Your task to perform on an android device: turn off airplane mode Image 0: 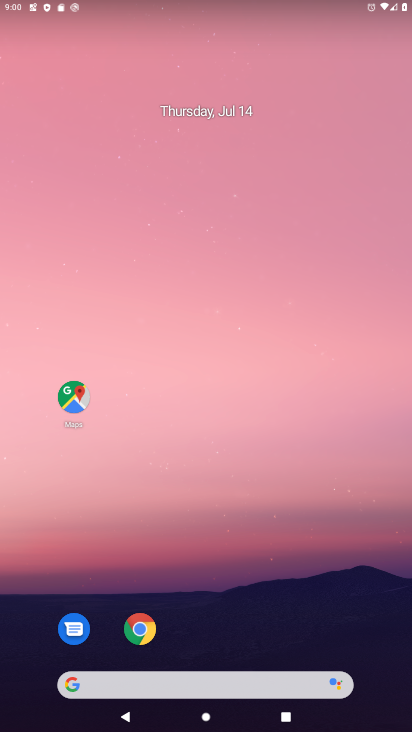
Step 0: click (268, 146)
Your task to perform on an android device: turn off airplane mode Image 1: 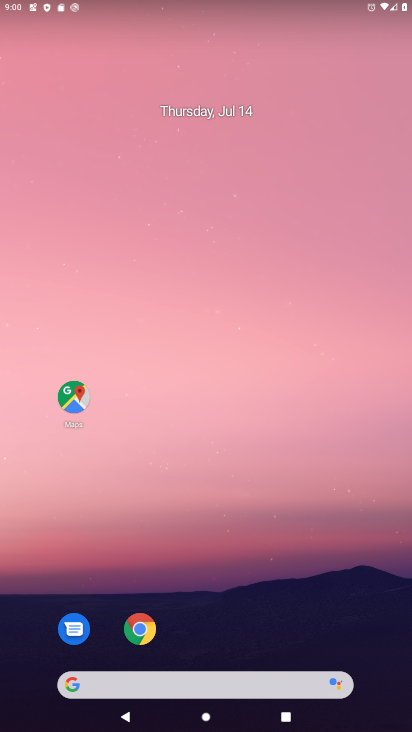
Step 1: drag from (246, 562) to (226, 27)
Your task to perform on an android device: turn off airplane mode Image 2: 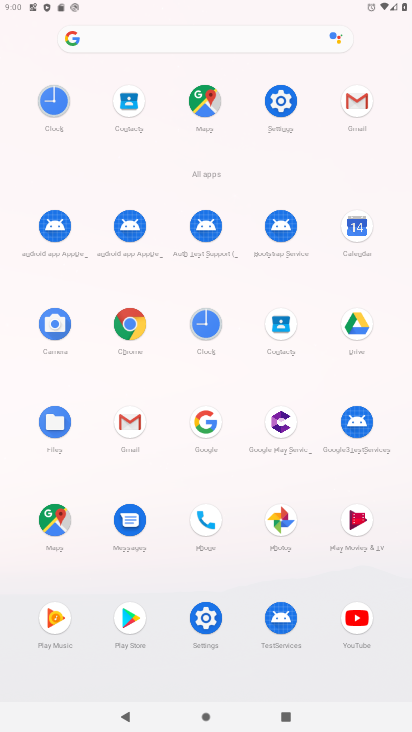
Step 2: click (284, 103)
Your task to perform on an android device: turn off airplane mode Image 3: 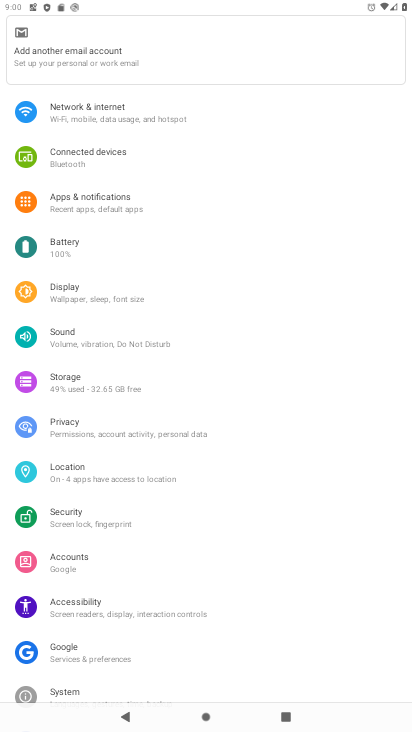
Step 3: click (141, 123)
Your task to perform on an android device: turn off airplane mode Image 4: 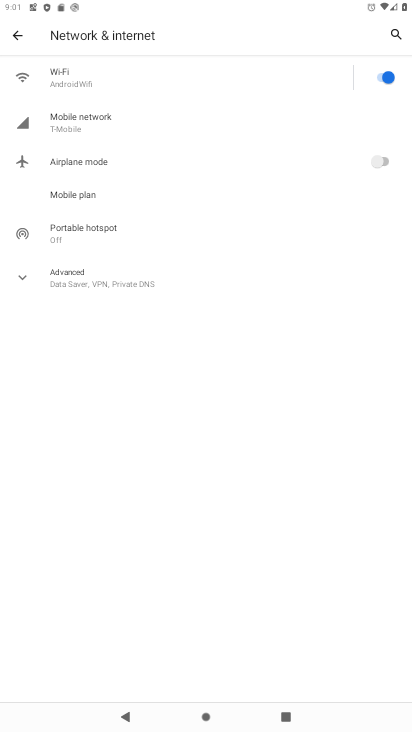
Step 4: task complete